Your task to perform on an android device: choose inbox layout in the gmail app Image 0: 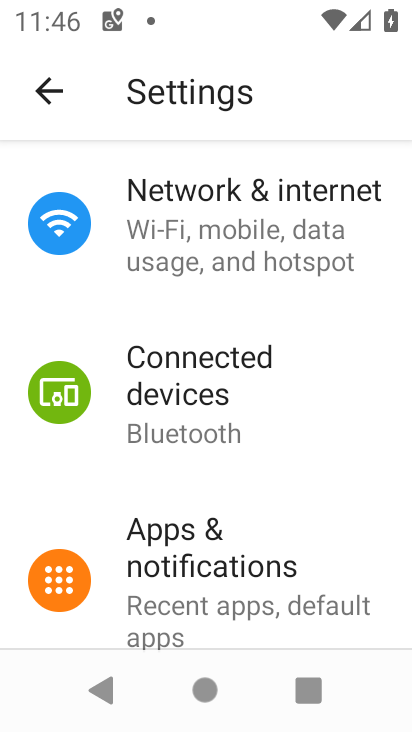
Step 0: press home button
Your task to perform on an android device: choose inbox layout in the gmail app Image 1: 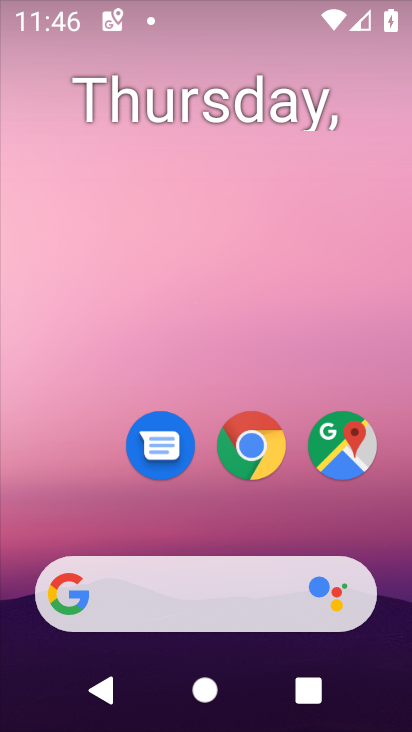
Step 1: drag from (254, 568) to (189, 16)
Your task to perform on an android device: choose inbox layout in the gmail app Image 2: 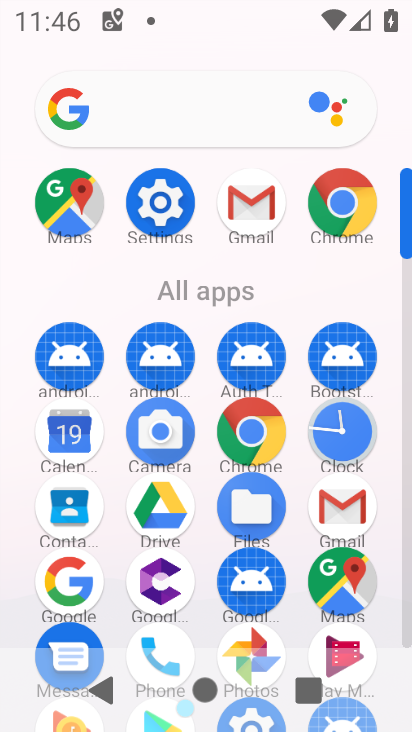
Step 2: click (341, 505)
Your task to perform on an android device: choose inbox layout in the gmail app Image 3: 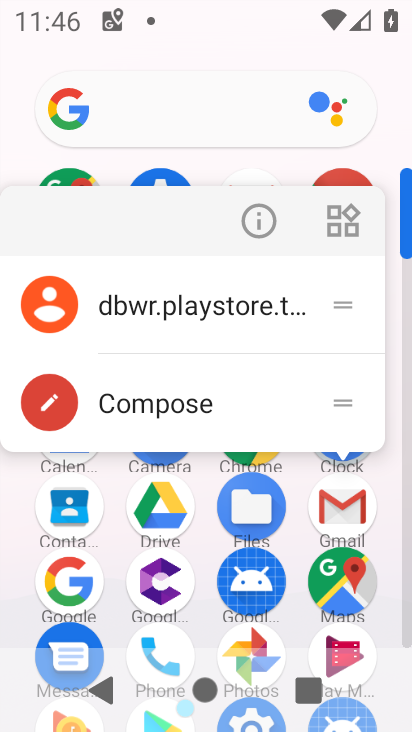
Step 3: click (212, 302)
Your task to perform on an android device: choose inbox layout in the gmail app Image 4: 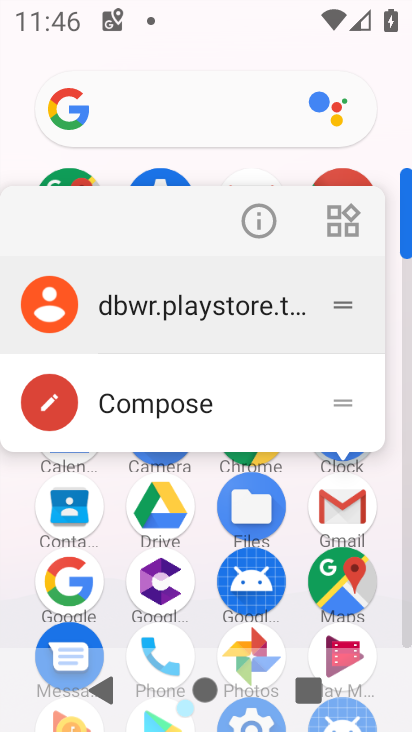
Step 4: click (212, 302)
Your task to perform on an android device: choose inbox layout in the gmail app Image 5: 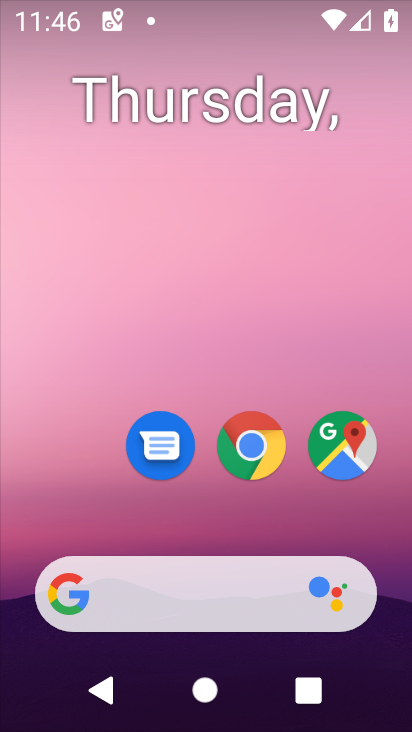
Step 5: drag from (277, 676) to (202, 212)
Your task to perform on an android device: choose inbox layout in the gmail app Image 6: 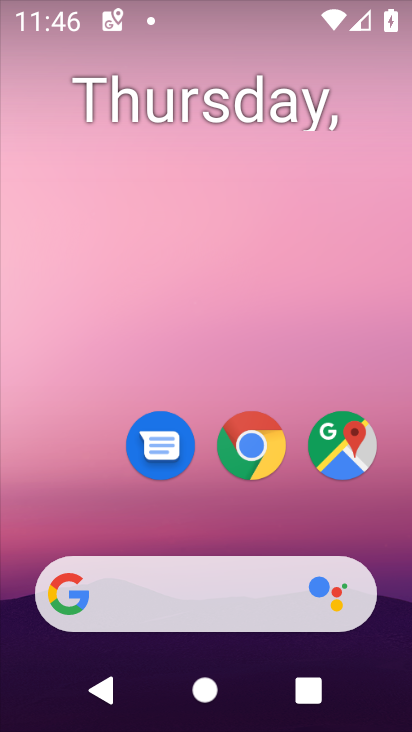
Step 6: drag from (270, 635) to (205, 16)
Your task to perform on an android device: choose inbox layout in the gmail app Image 7: 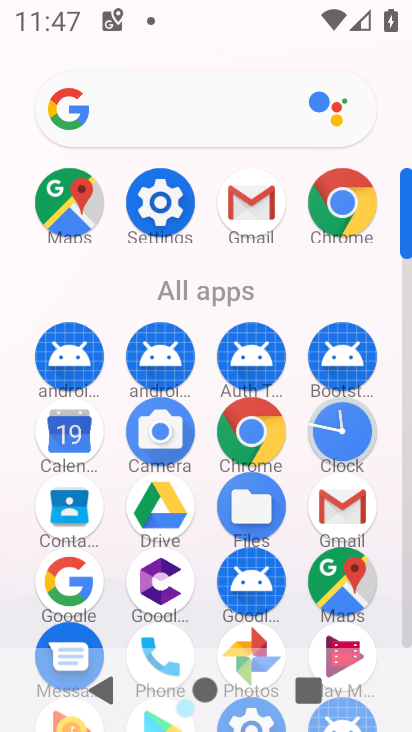
Step 7: click (342, 486)
Your task to perform on an android device: choose inbox layout in the gmail app Image 8: 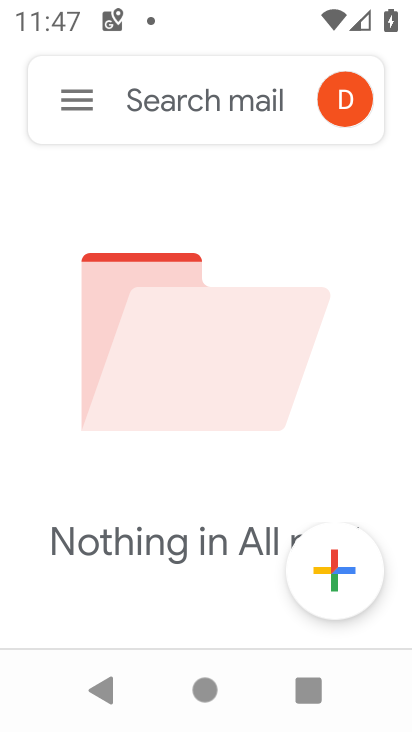
Step 8: click (78, 108)
Your task to perform on an android device: choose inbox layout in the gmail app Image 9: 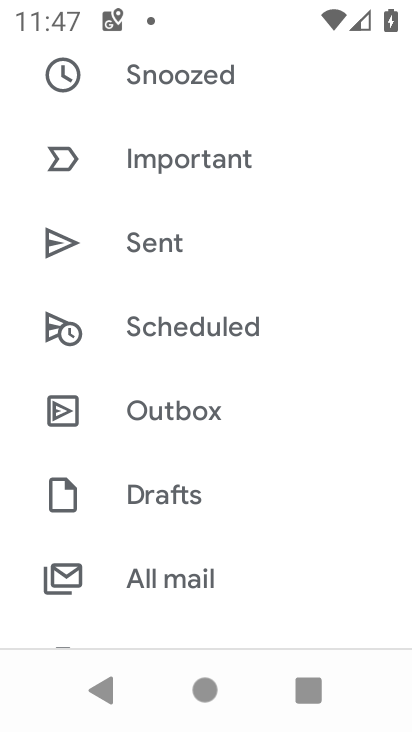
Step 9: click (169, 568)
Your task to perform on an android device: choose inbox layout in the gmail app Image 10: 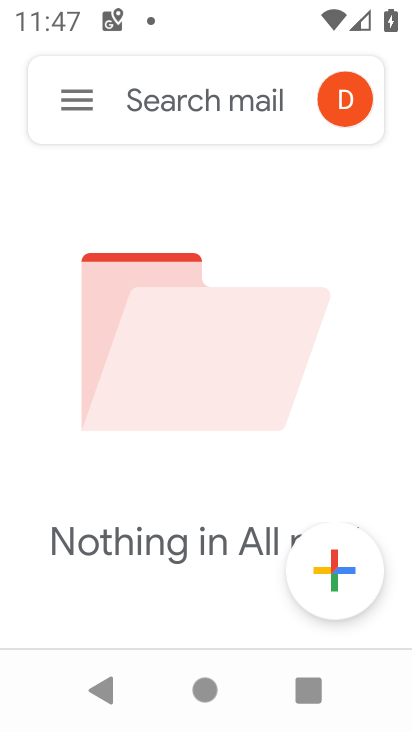
Step 10: click (66, 94)
Your task to perform on an android device: choose inbox layout in the gmail app Image 11: 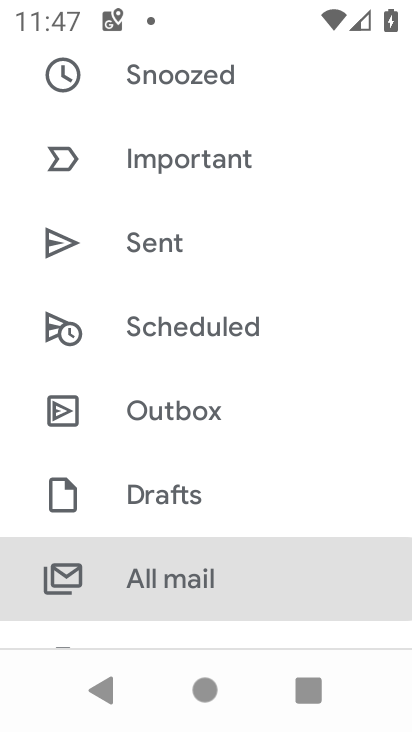
Step 11: drag from (195, 598) to (157, 119)
Your task to perform on an android device: choose inbox layout in the gmail app Image 12: 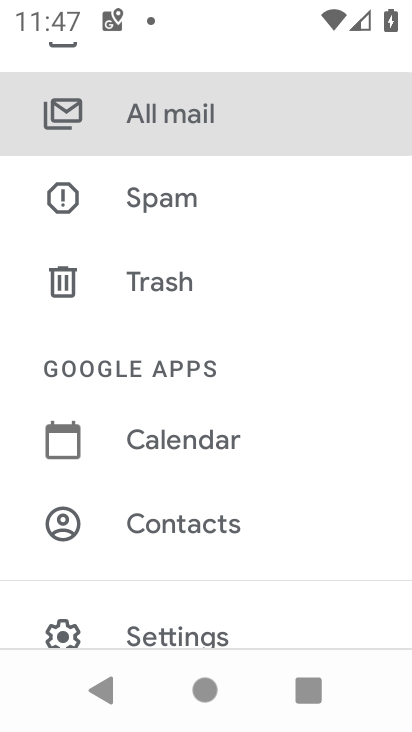
Step 12: drag from (268, 617) to (241, 151)
Your task to perform on an android device: choose inbox layout in the gmail app Image 13: 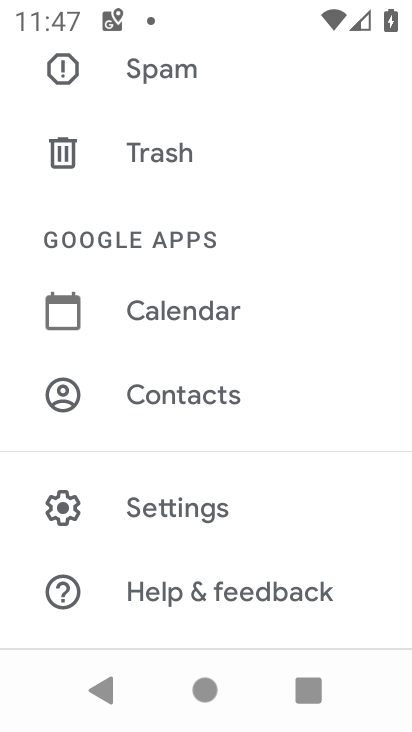
Step 13: click (174, 504)
Your task to perform on an android device: choose inbox layout in the gmail app Image 14: 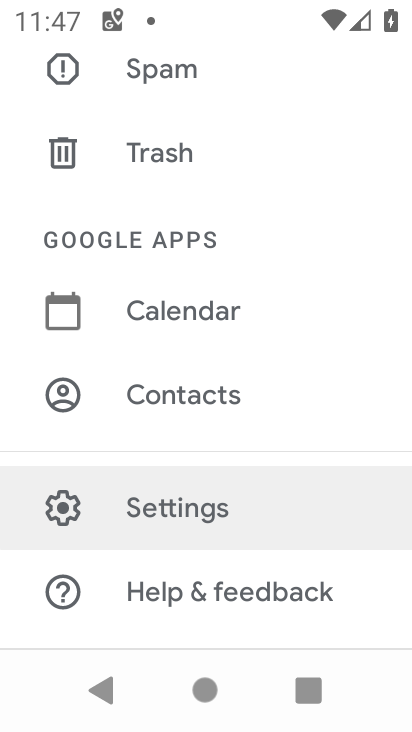
Step 14: click (174, 501)
Your task to perform on an android device: choose inbox layout in the gmail app Image 15: 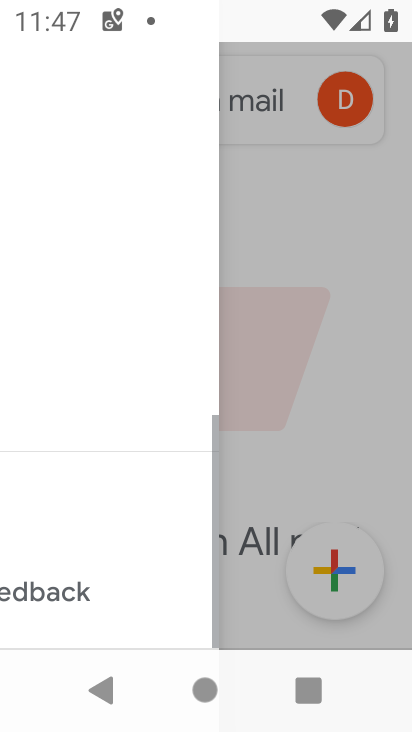
Step 15: click (173, 500)
Your task to perform on an android device: choose inbox layout in the gmail app Image 16: 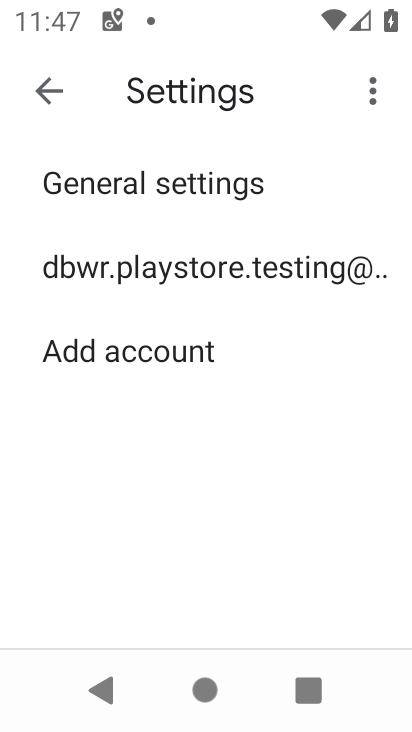
Step 16: click (146, 239)
Your task to perform on an android device: choose inbox layout in the gmail app Image 17: 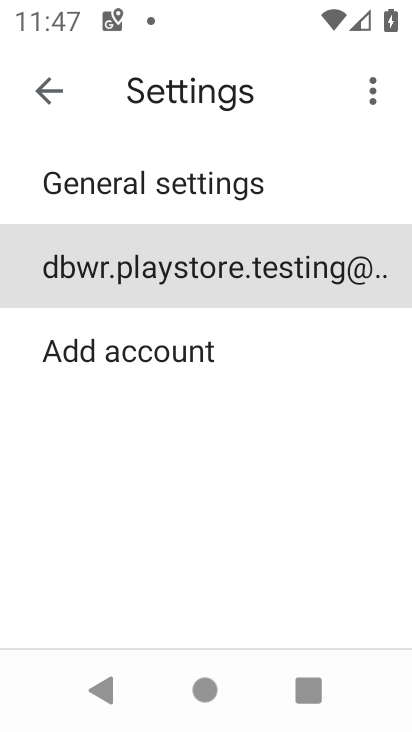
Step 17: click (147, 264)
Your task to perform on an android device: choose inbox layout in the gmail app Image 18: 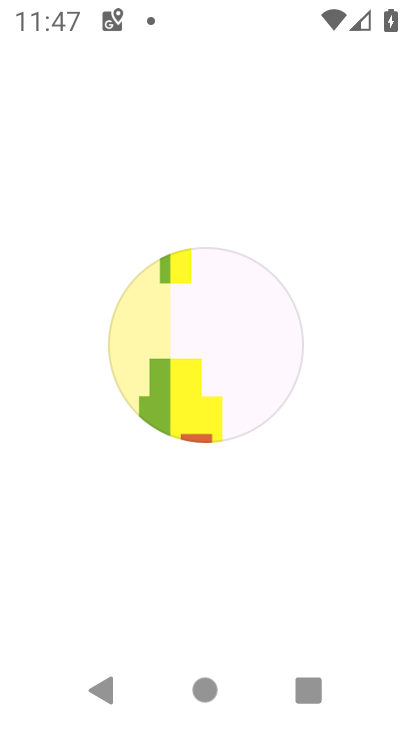
Step 18: task complete